Your task to perform on an android device: Install the Twitter app Image 0: 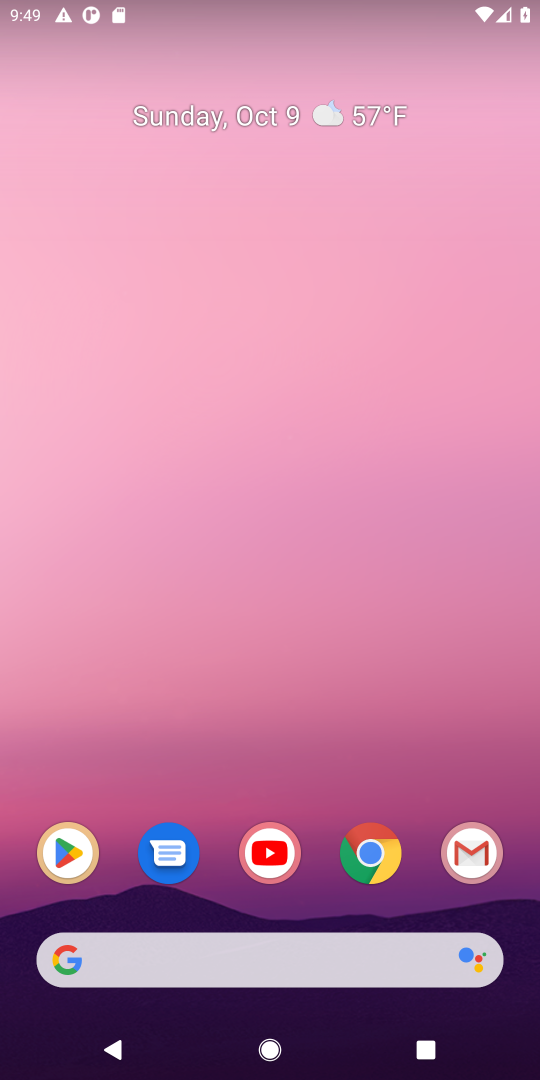
Step 0: click (100, 854)
Your task to perform on an android device: Install the Twitter app Image 1: 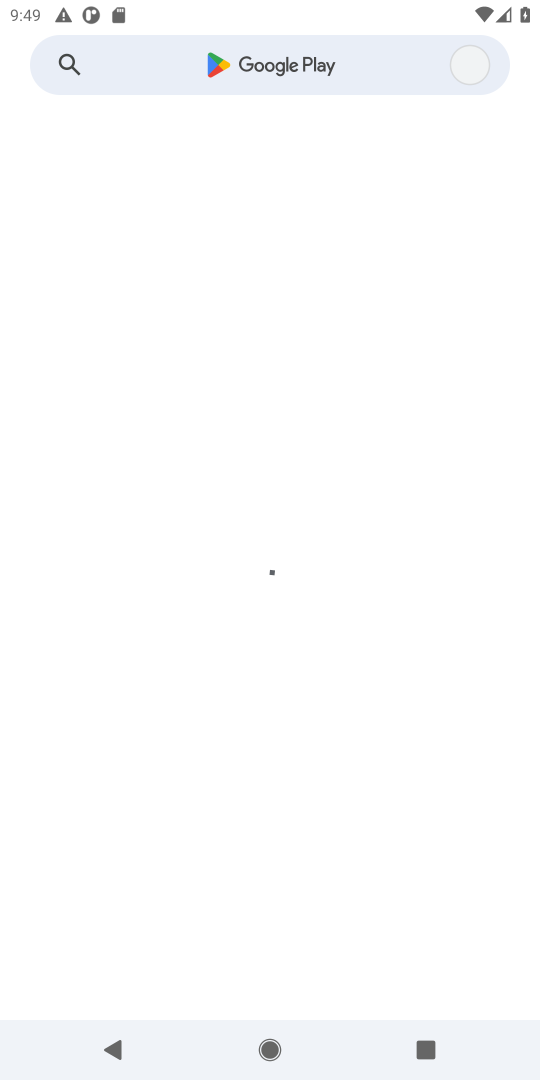
Step 1: click (272, 70)
Your task to perform on an android device: Install the Twitter app Image 2: 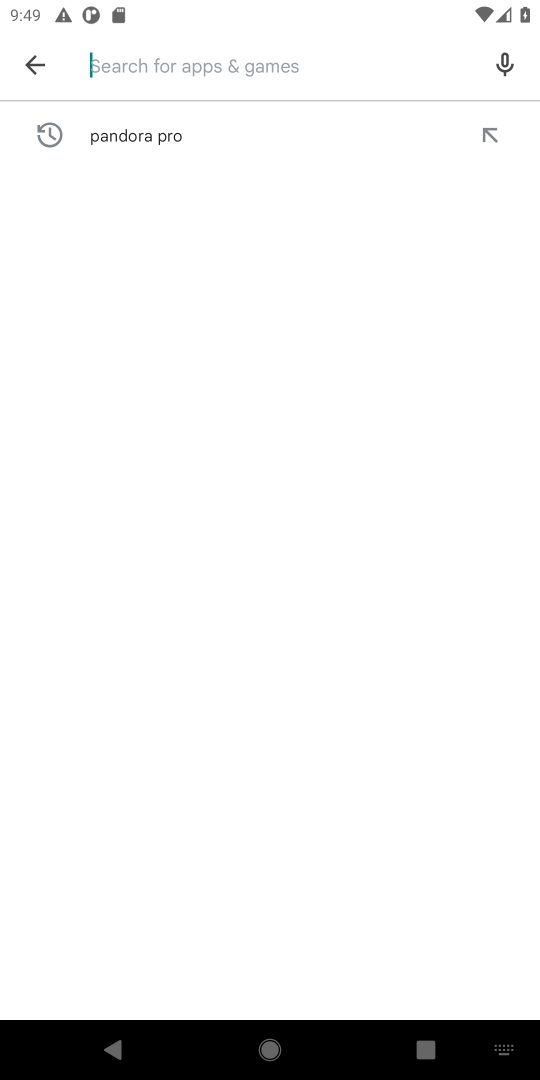
Step 2: type "twitter"
Your task to perform on an android device: Install the Twitter app Image 3: 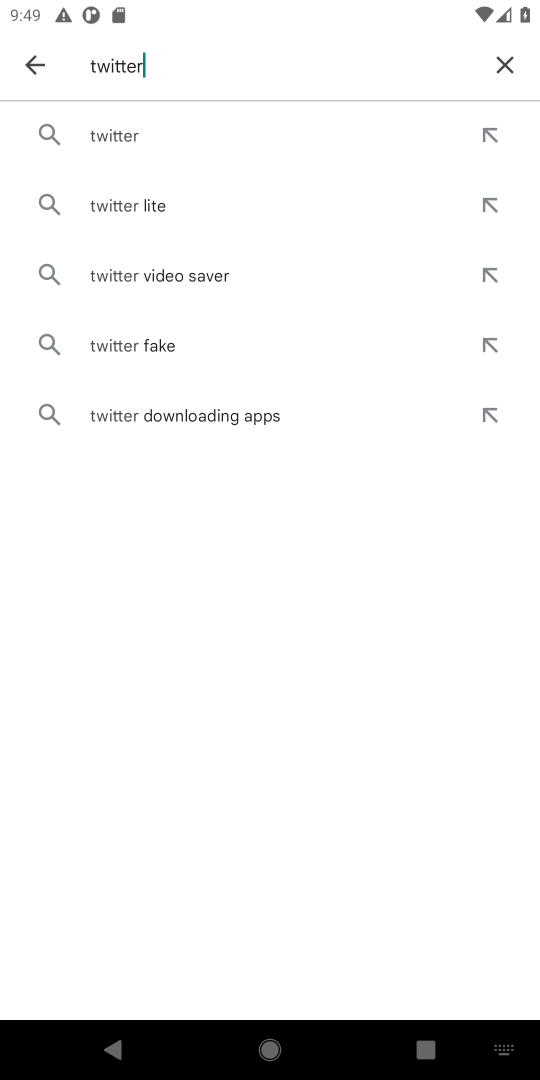
Step 3: type ""
Your task to perform on an android device: Install the Twitter app Image 4: 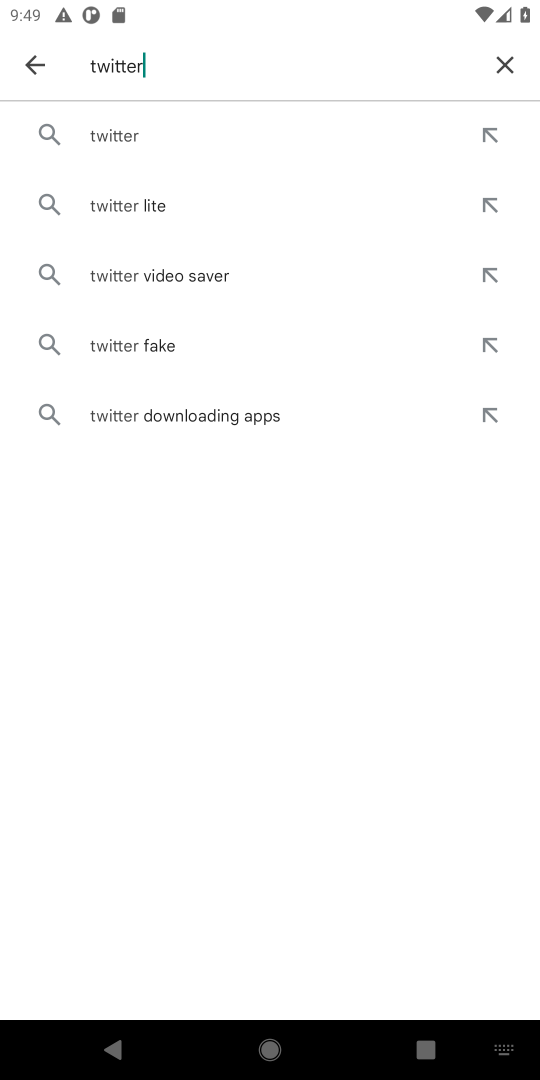
Step 4: click (176, 132)
Your task to perform on an android device: Install the Twitter app Image 5: 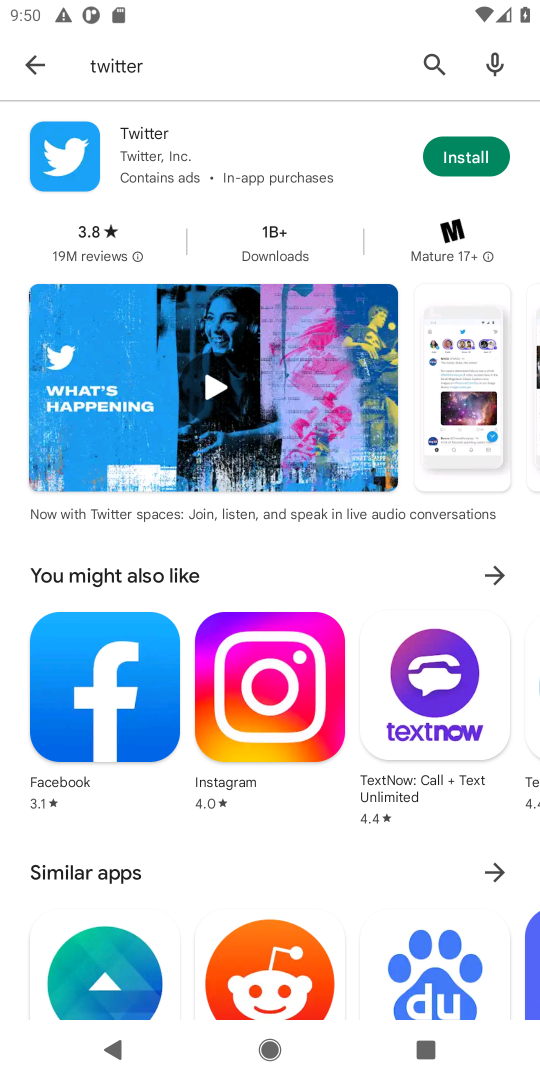
Step 5: click (456, 147)
Your task to perform on an android device: Install the Twitter app Image 6: 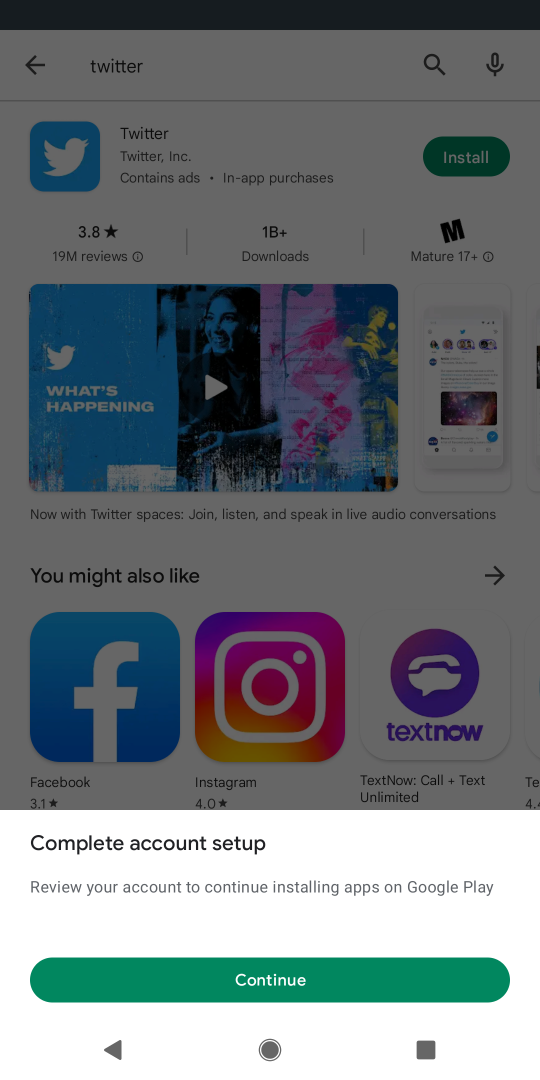
Step 6: click (339, 966)
Your task to perform on an android device: Install the Twitter app Image 7: 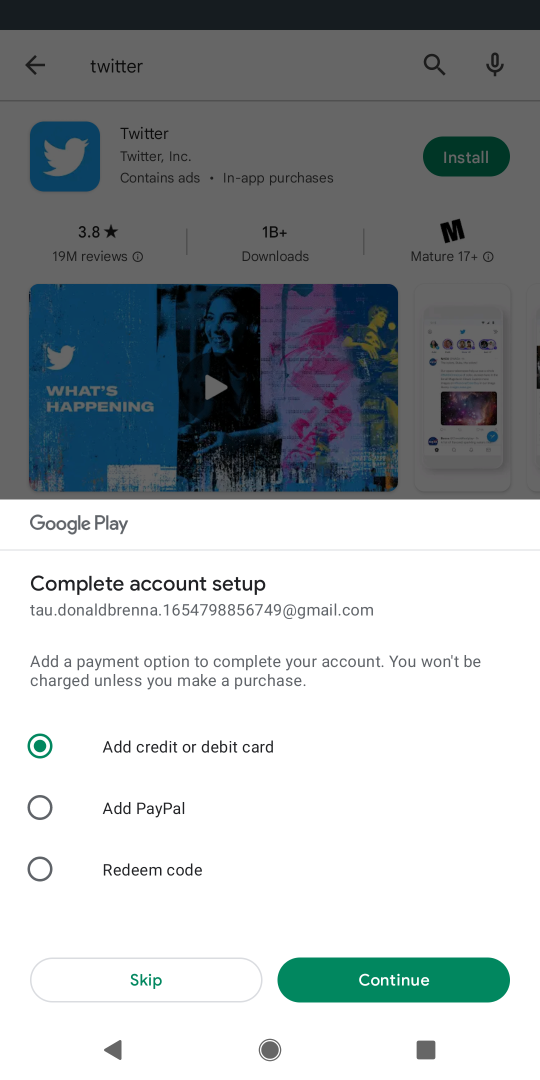
Step 7: click (122, 985)
Your task to perform on an android device: Install the Twitter app Image 8: 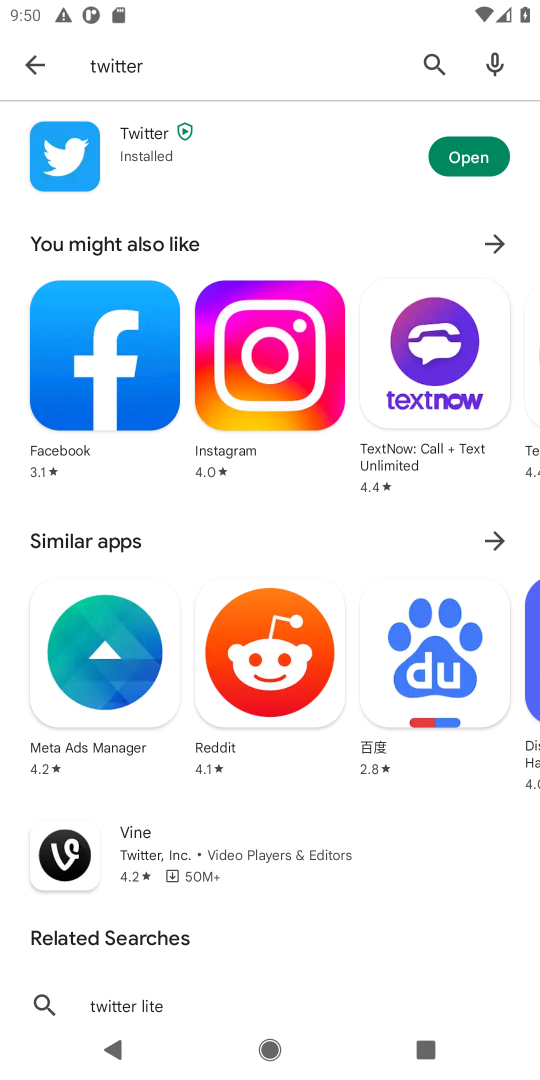
Step 8: click (489, 156)
Your task to perform on an android device: Install the Twitter app Image 9: 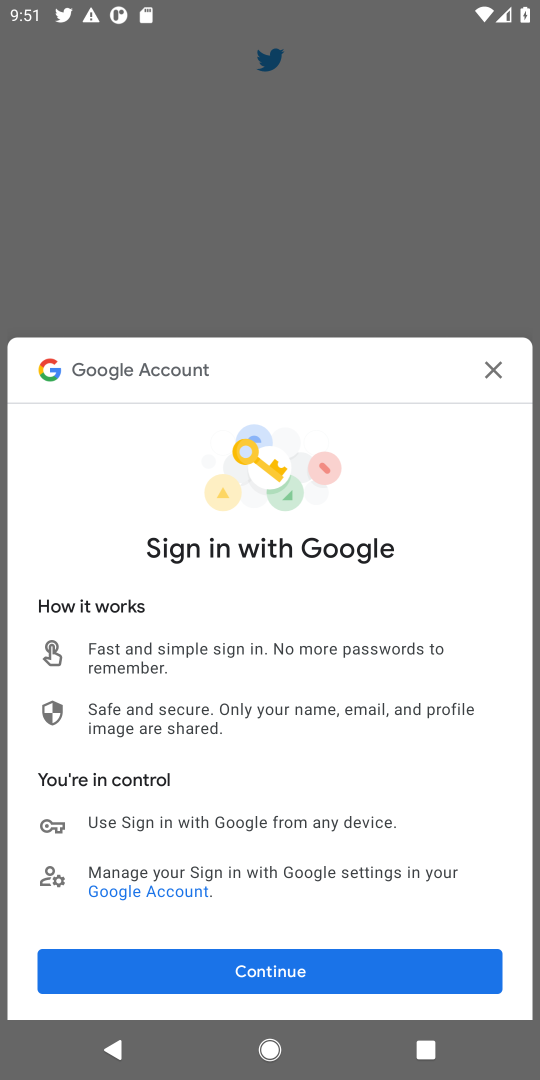
Step 9: click (263, 995)
Your task to perform on an android device: Install the Twitter app Image 10: 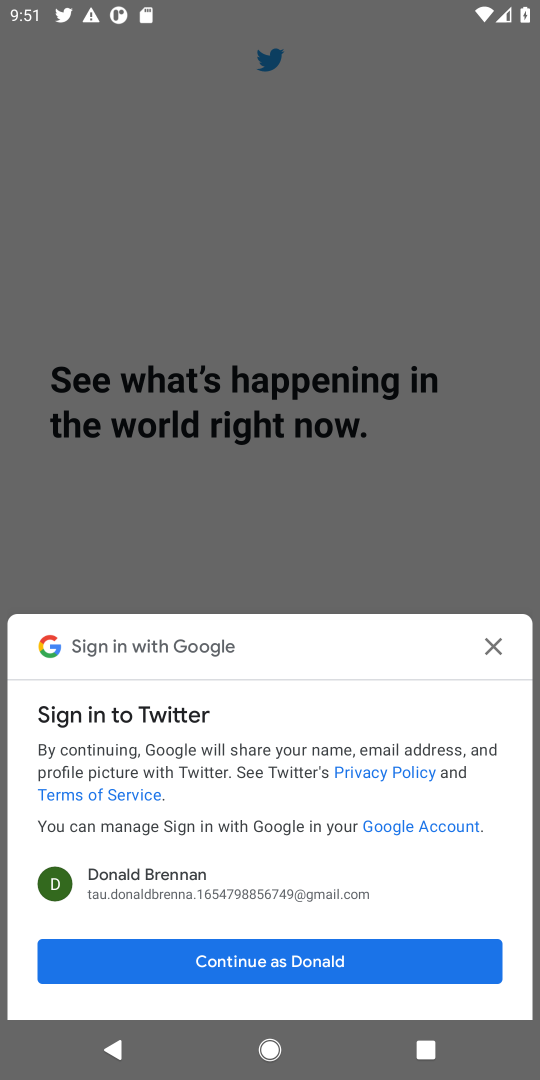
Step 10: click (260, 964)
Your task to perform on an android device: Install the Twitter app Image 11: 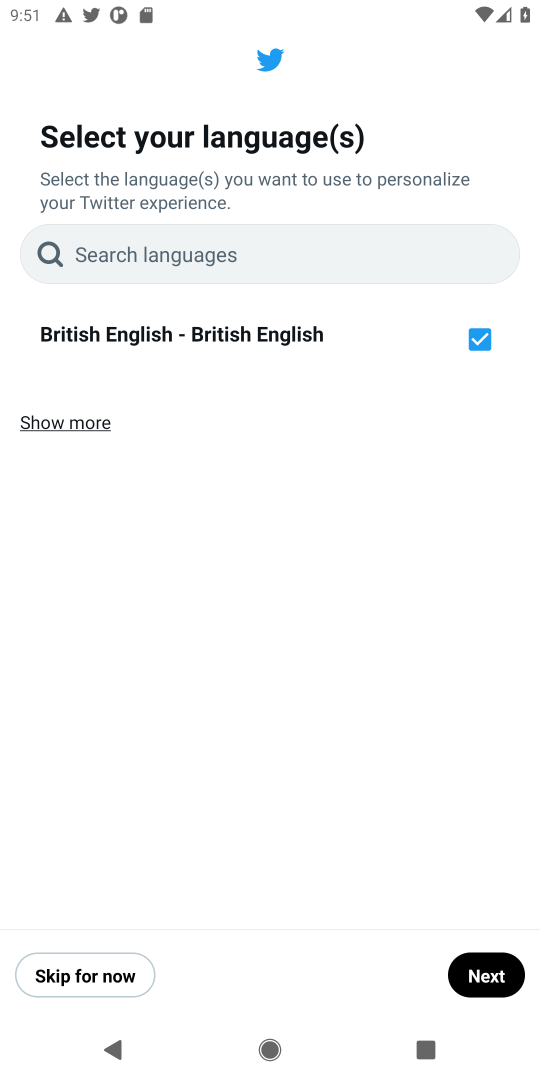
Step 11: click (79, 994)
Your task to perform on an android device: Install the Twitter app Image 12: 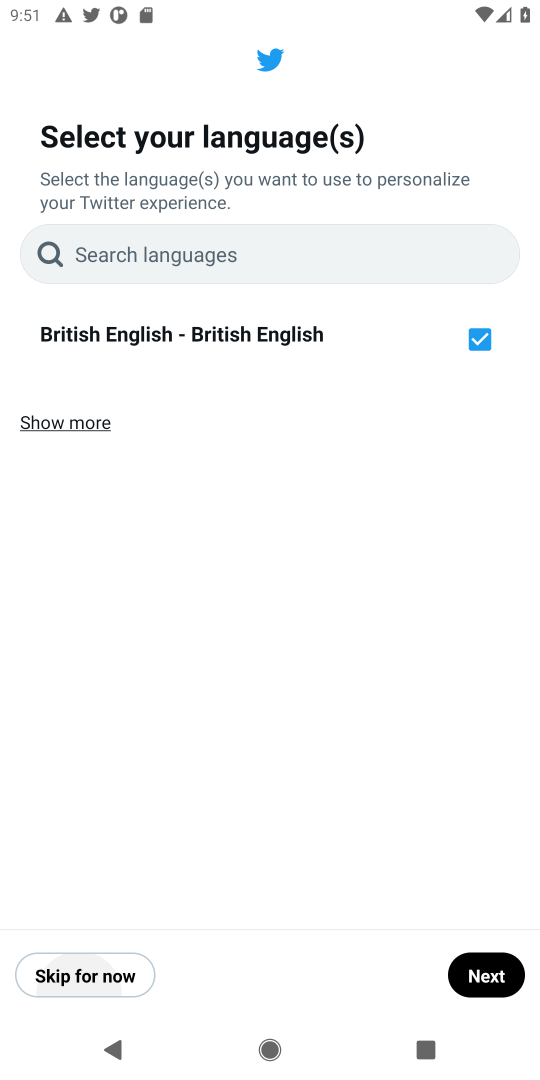
Step 12: click (79, 984)
Your task to perform on an android device: Install the Twitter app Image 13: 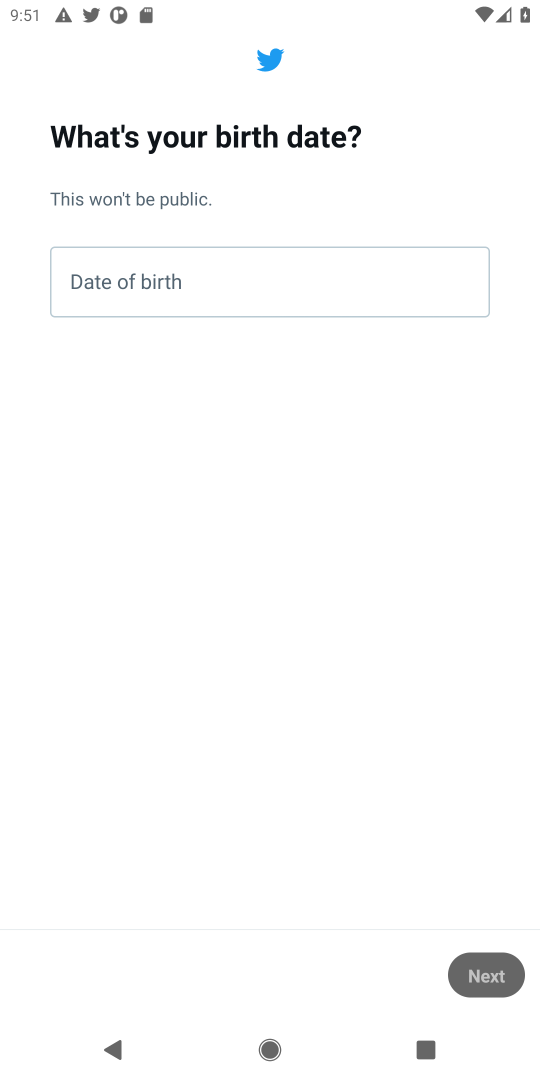
Step 13: click (305, 286)
Your task to perform on an android device: Install the Twitter app Image 14: 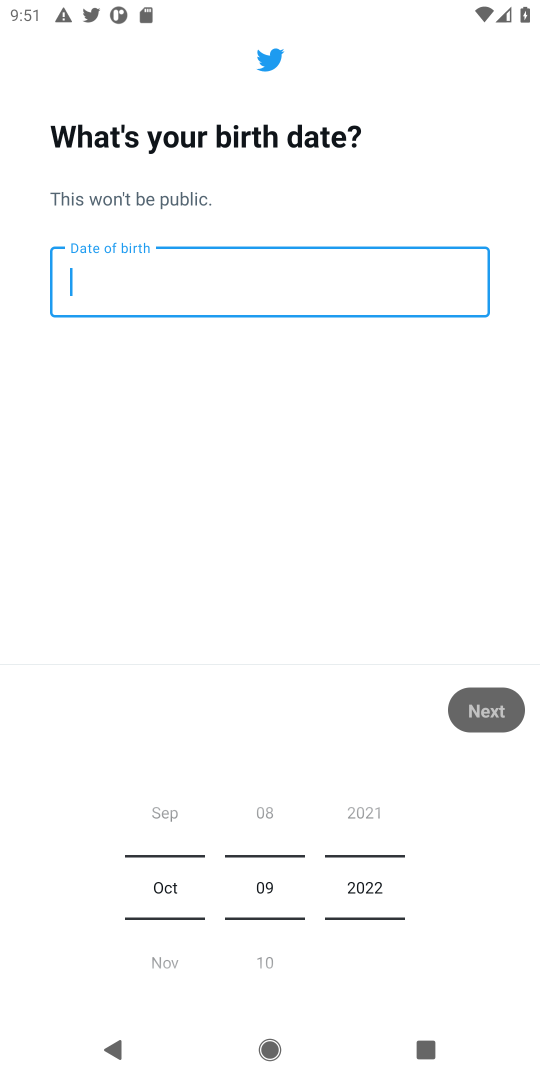
Step 14: drag from (204, 878) to (206, 570)
Your task to perform on an android device: Install the Twitter app Image 15: 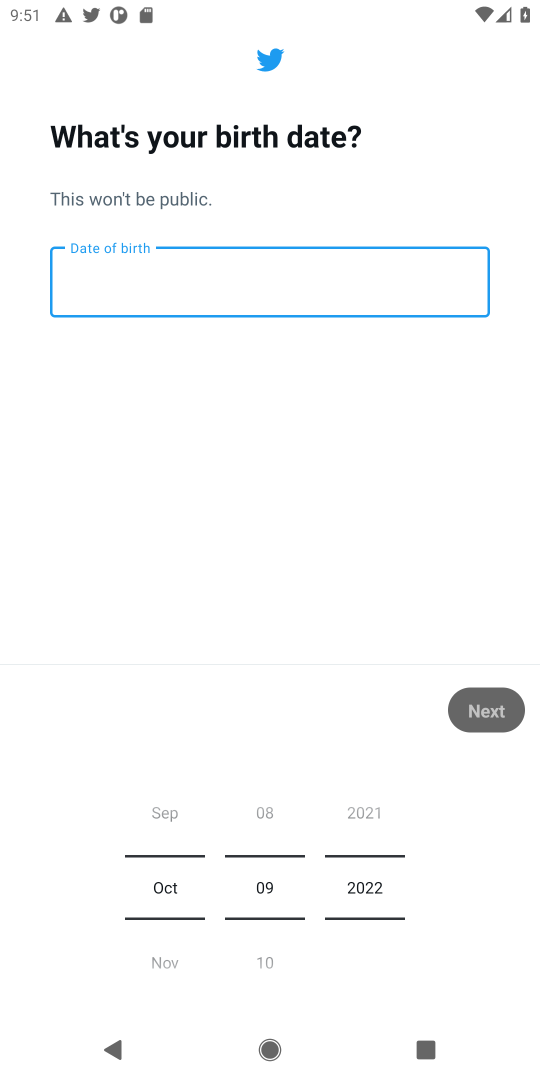
Step 15: drag from (208, 785) to (223, 494)
Your task to perform on an android device: Install the Twitter app Image 16: 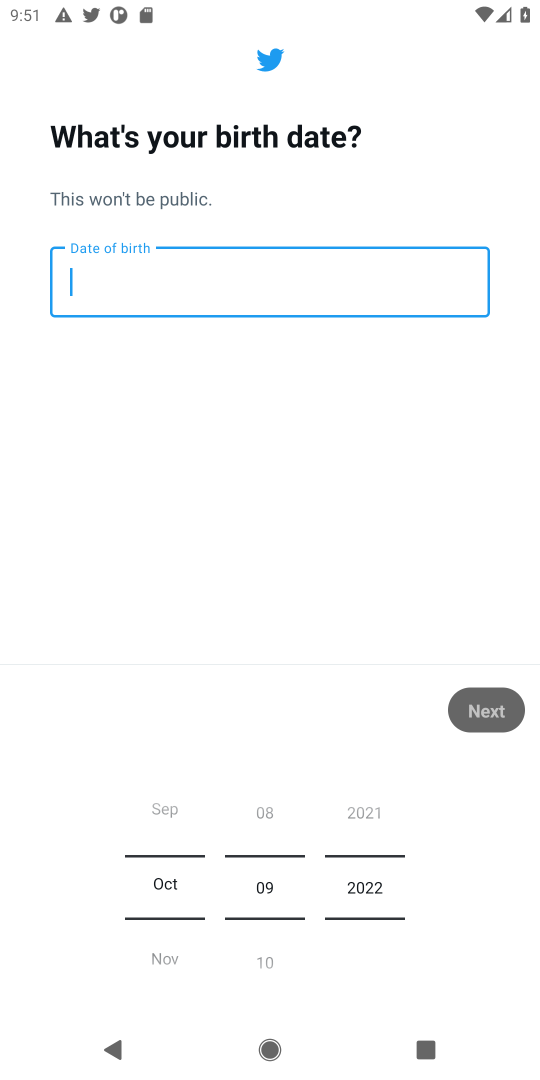
Step 16: drag from (181, 786) to (234, 269)
Your task to perform on an android device: Install the Twitter app Image 17: 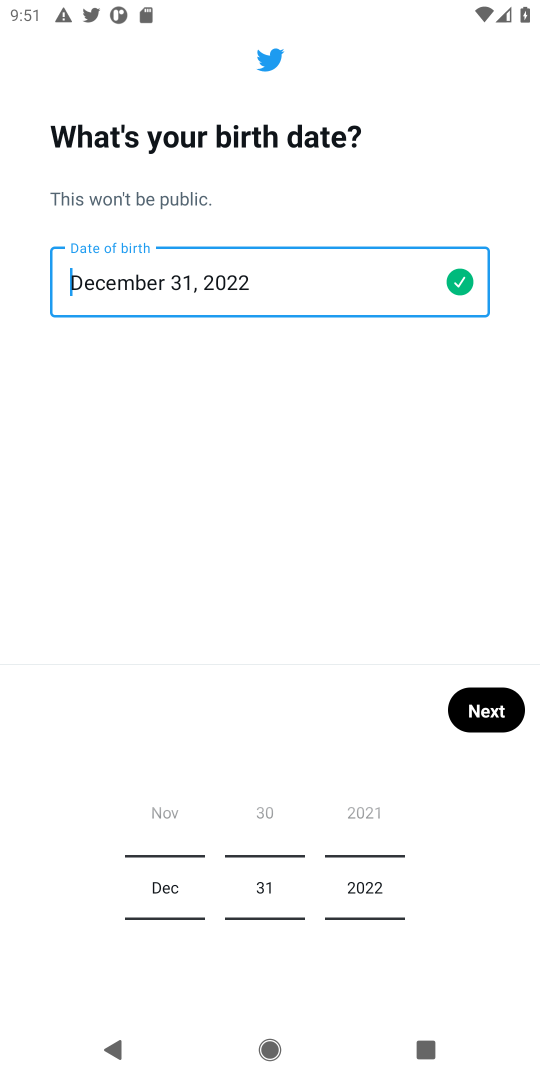
Step 17: drag from (152, 908) to (204, 601)
Your task to perform on an android device: Install the Twitter app Image 18: 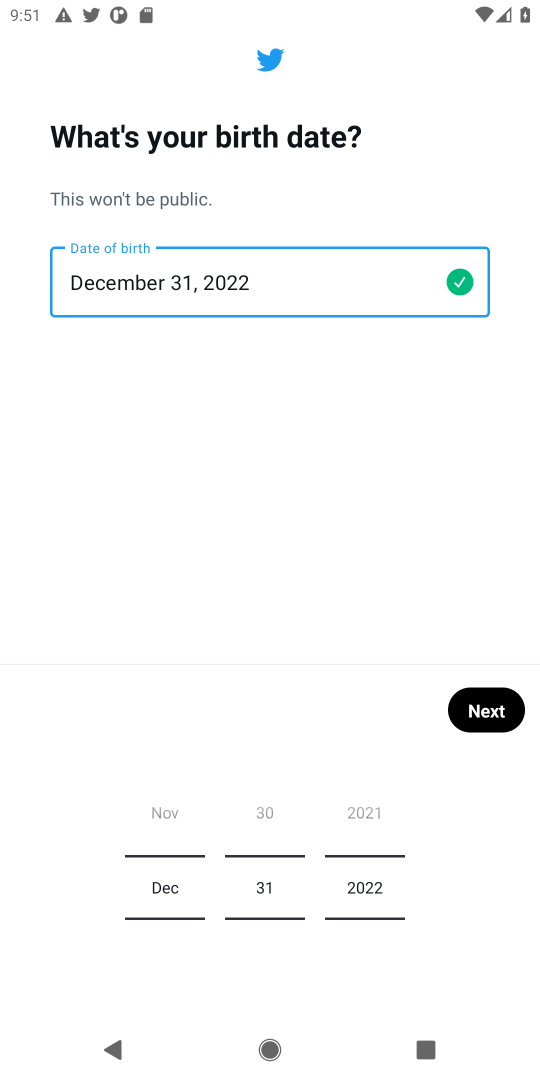
Step 18: click (497, 722)
Your task to perform on an android device: Install the Twitter app Image 19: 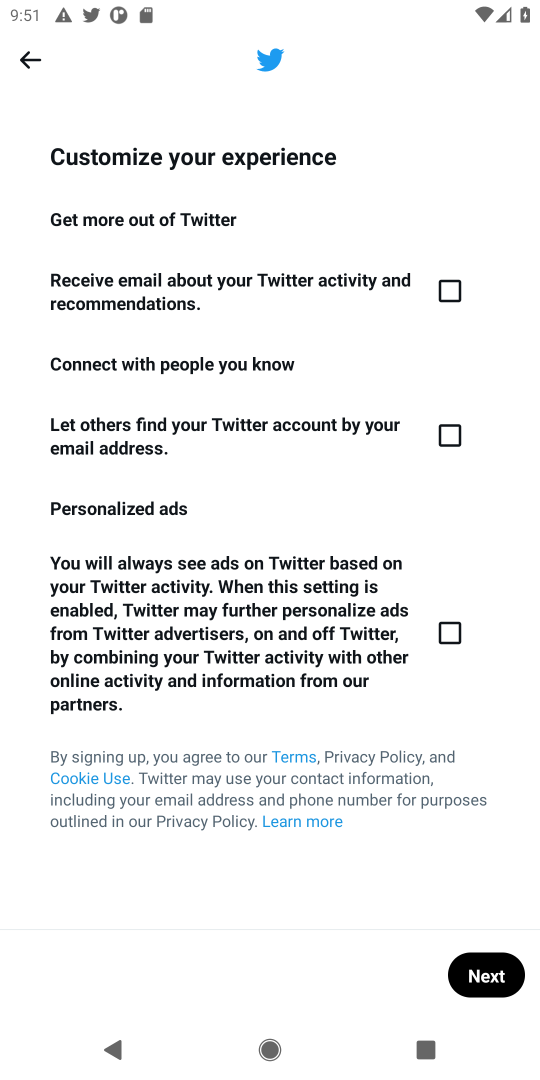
Step 19: click (494, 991)
Your task to perform on an android device: Install the Twitter app Image 20: 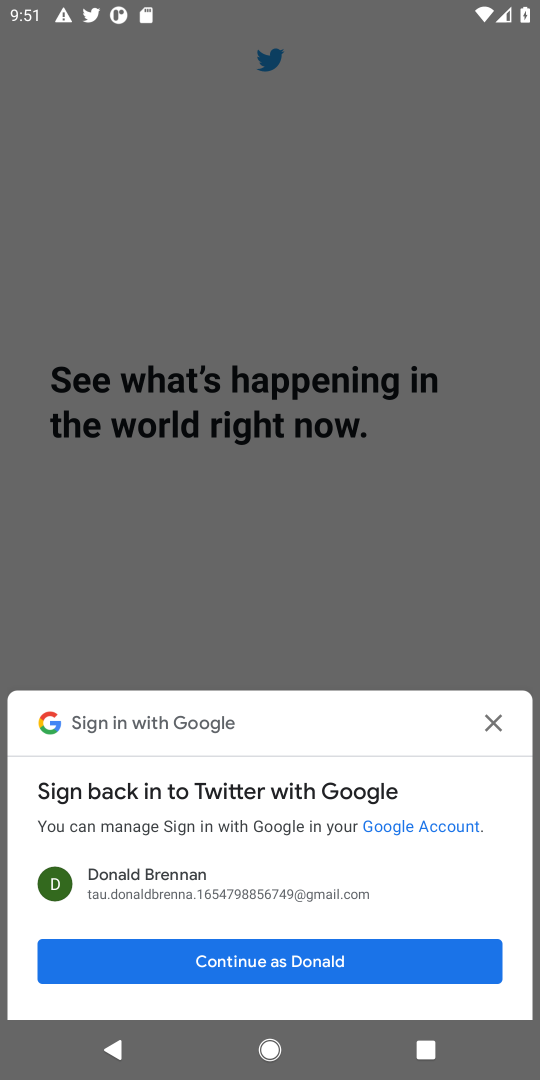
Step 20: click (449, 952)
Your task to perform on an android device: Install the Twitter app Image 21: 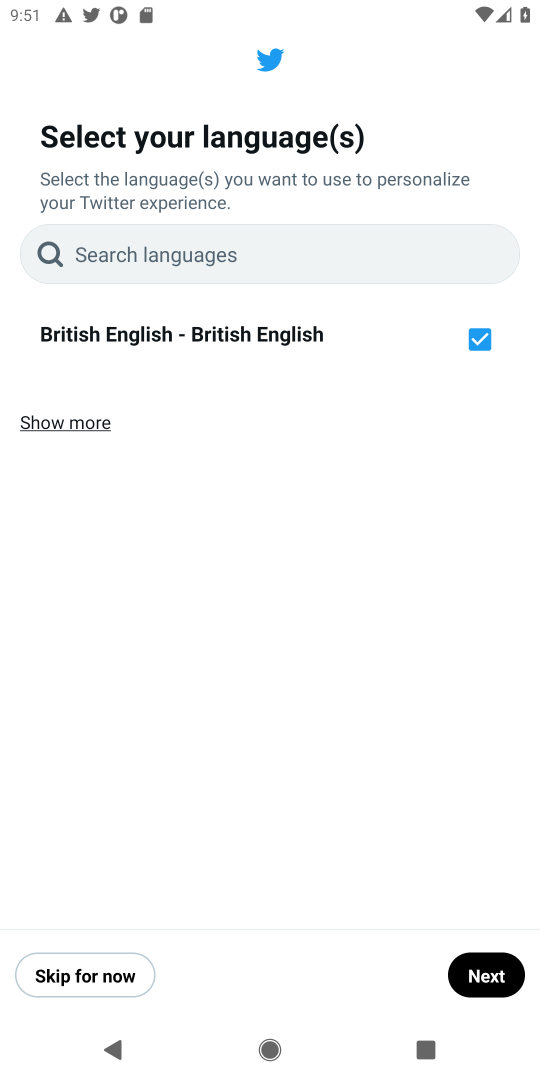
Step 21: click (464, 959)
Your task to perform on an android device: Install the Twitter app Image 22: 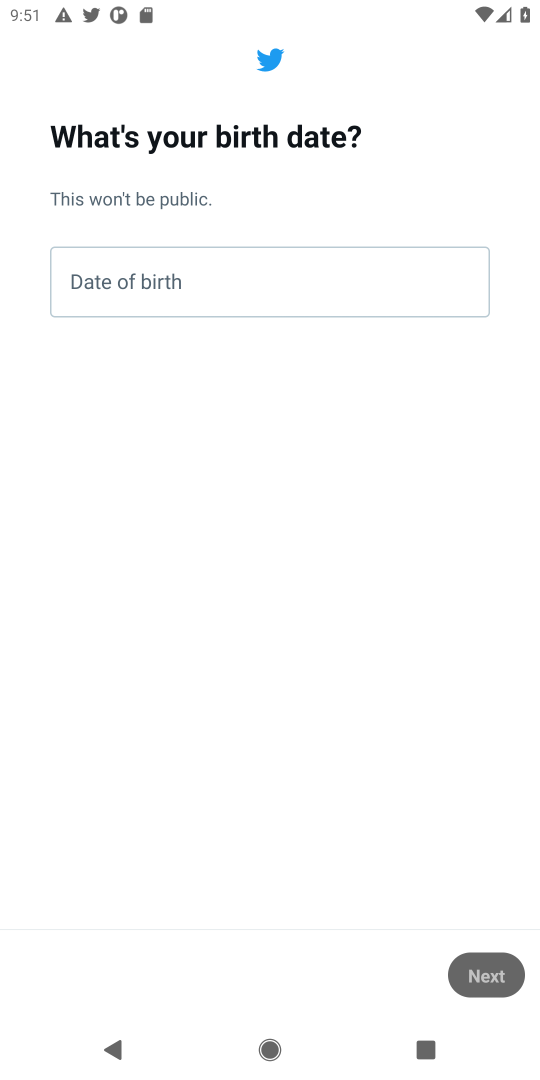
Step 22: click (294, 267)
Your task to perform on an android device: Install the Twitter app Image 23: 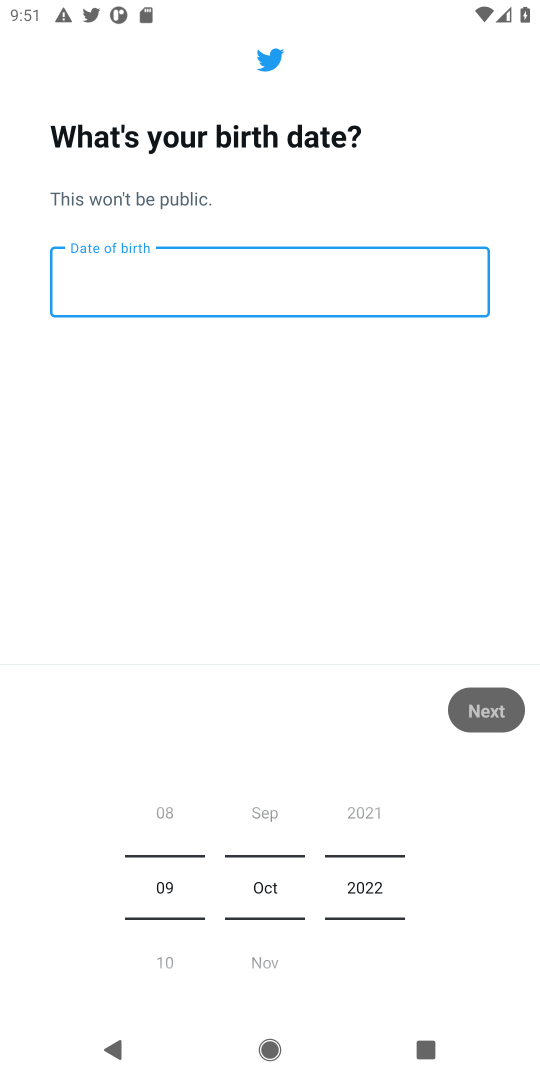
Step 23: task complete